Your task to perform on an android device: change keyboard looks Image 0: 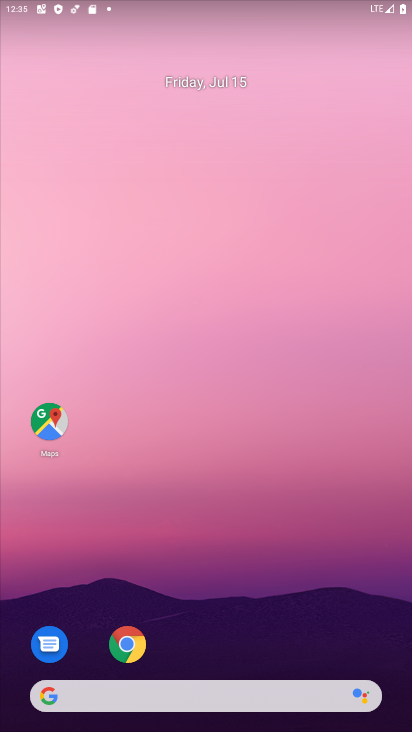
Step 0: drag from (21, 613) to (294, 96)
Your task to perform on an android device: change keyboard looks Image 1: 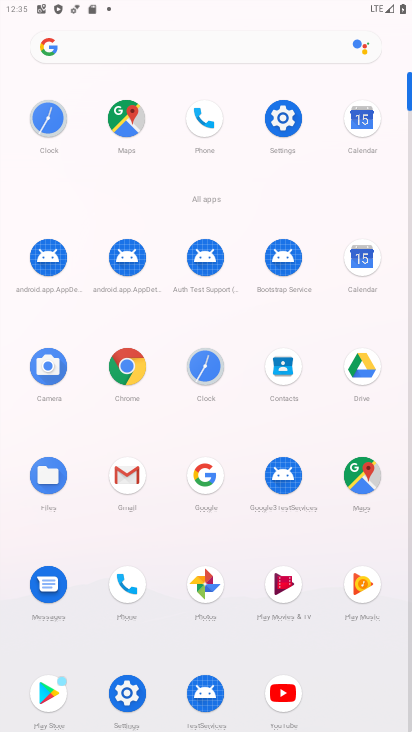
Step 1: click (281, 126)
Your task to perform on an android device: change keyboard looks Image 2: 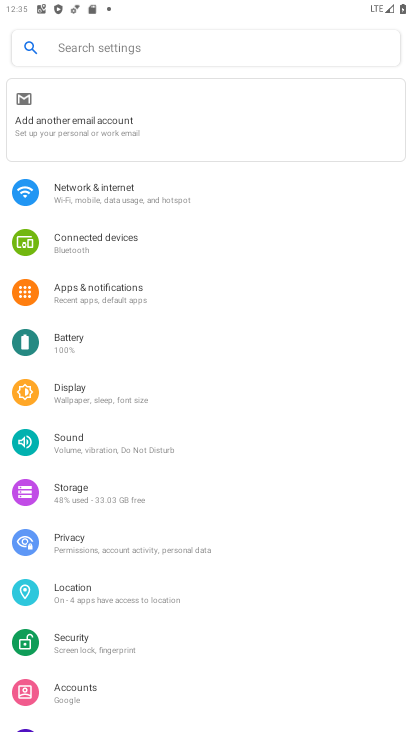
Step 2: click (126, 397)
Your task to perform on an android device: change keyboard looks Image 3: 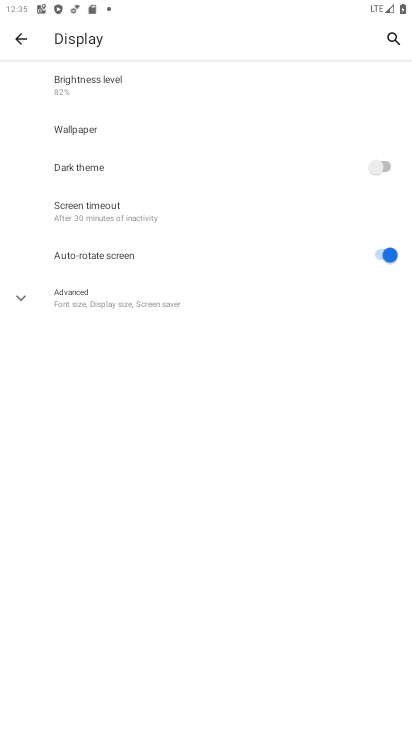
Step 3: task complete